Your task to perform on an android device: choose inbox layout in the gmail app Image 0: 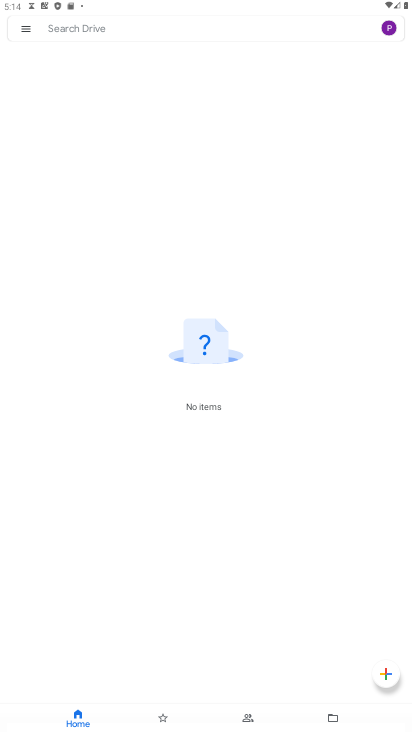
Step 0: press home button
Your task to perform on an android device: choose inbox layout in the gmail app Image 1: 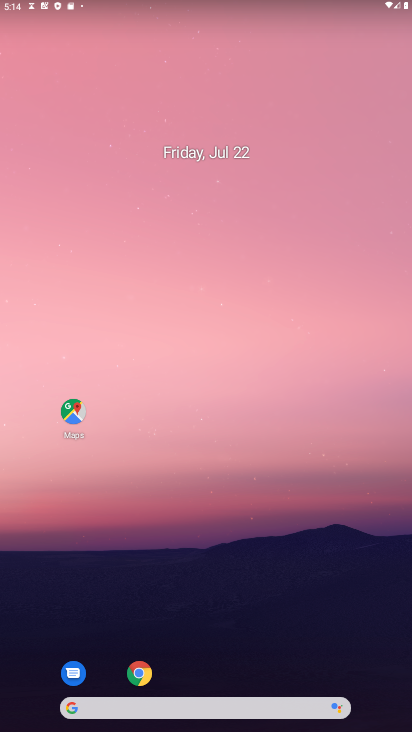
Step 1: drag from (262, 649) to (302, 98)
Your task to perform on an android device: choose inbox layout in the gmail app Image 2: 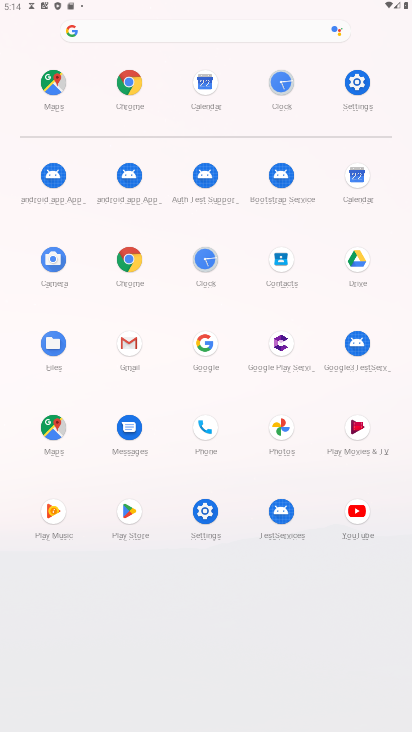
Step 2: click (124, 341)
Your task to perform on an android device: choose inbox layout in the gmail app Image 3: 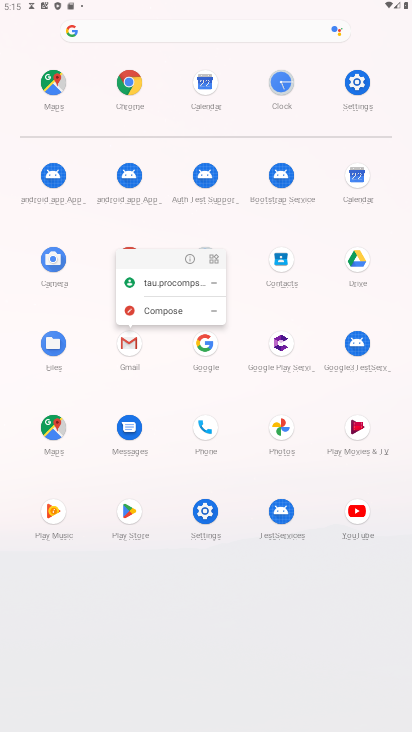
Step 3: click (132, 343)
Your task to perform on an android device: choose inbox layout in the gmail app Image 4: 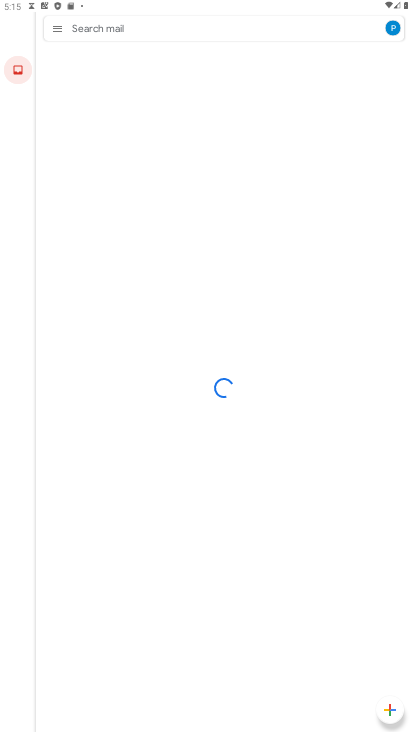
Step 4: click (55, 26)
Your task to perform on an android device: choose inbox layout in the gmail app Image 5: 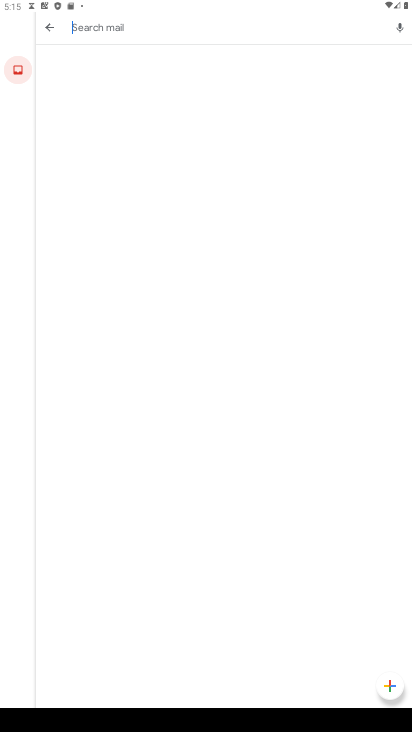
Step 5: click (44, 28)
Your task to perform on an android device: choose inbox layout in the gmail app Image 6: 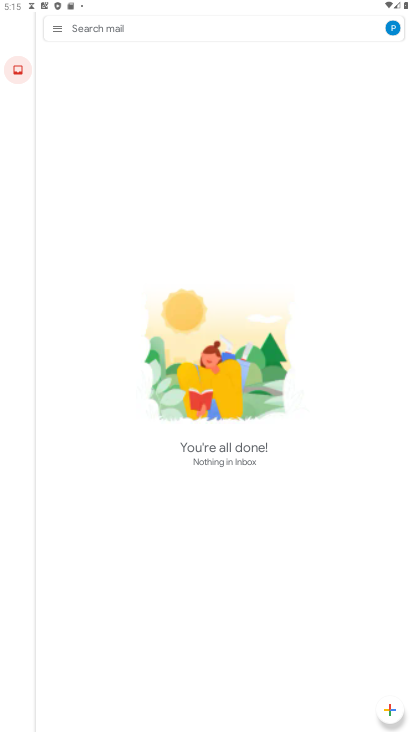
Step 6: click (60, 29)
Your task to perform on an android device: choose inbox layout in the gmail app Image 7: 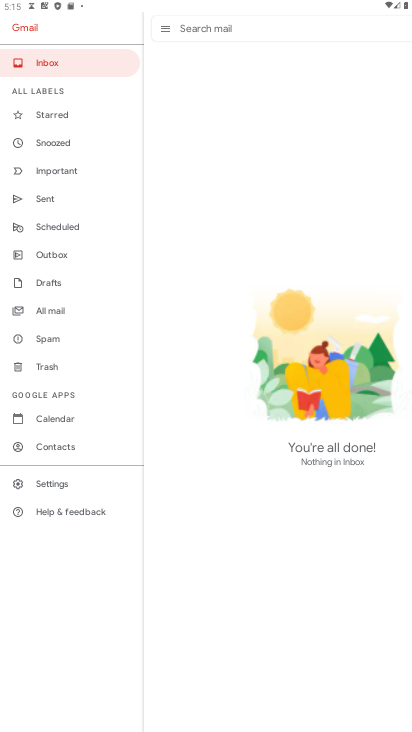
Step 7: click (59, 480)
Your task to perform on an android device: choose inbox layout in the gmail app Image 8: 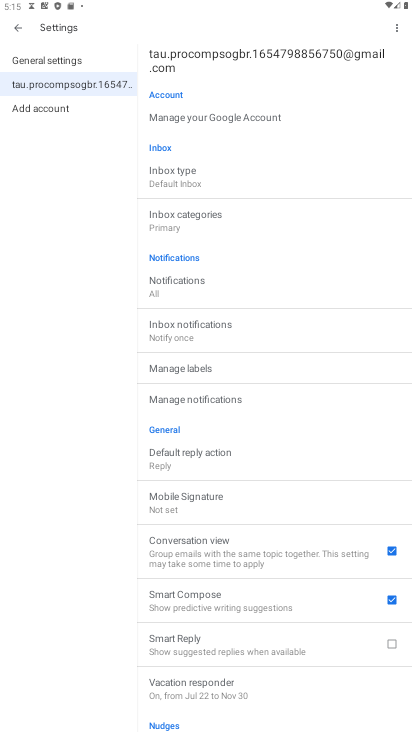
Step 8: click (179, 177)
Your task to perform on an android device: choose inbox layout in the gmail app Image 9: 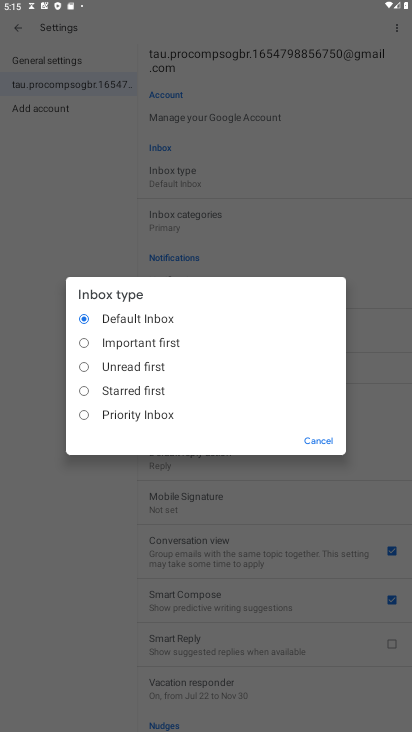
Step 9: click (81, 337)
Your task to perform on an android device: choose inbox layout in the gmail app Image 10: 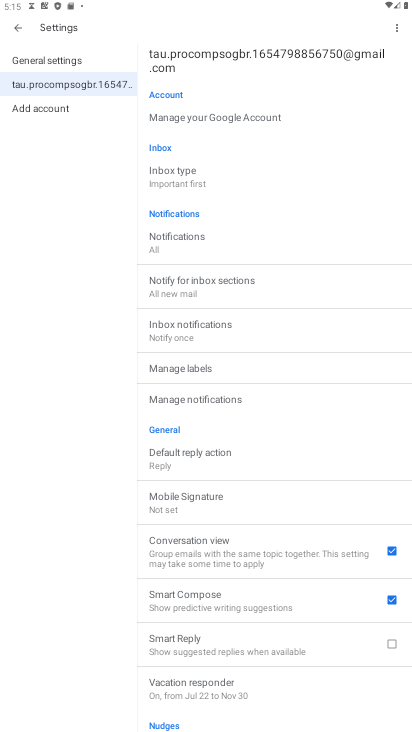
Step 10: task complete